Your task to perform on an android device: toggle show notifications on the lock screen Image 0: 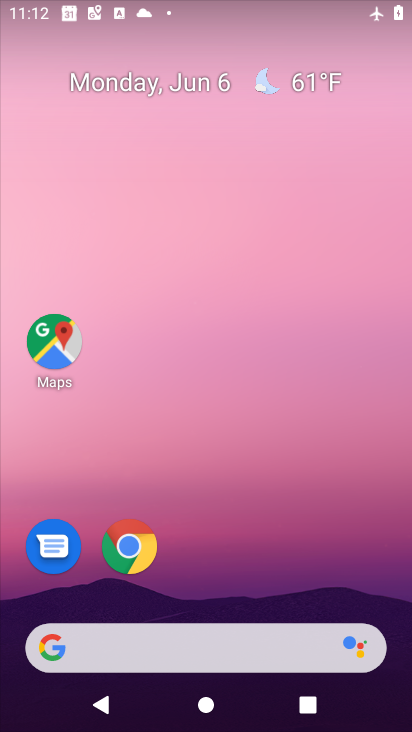
Step 0: drag from (393, 610) to (327, 87)
Your task to perform on an android device: toggle show notifications on the lock screen Image 1: 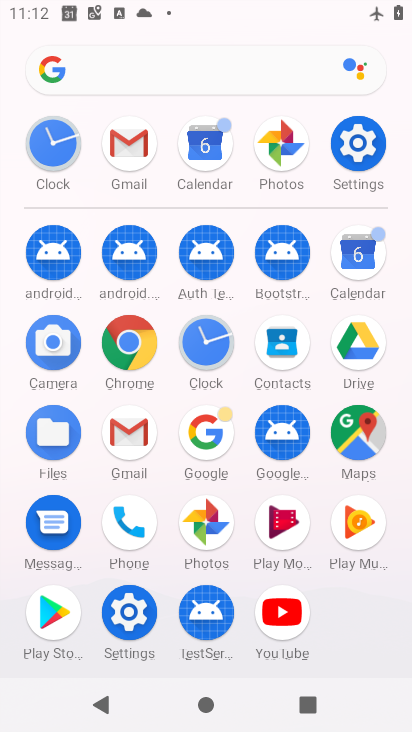
Step 1: click (129, 610)
Your task to perform on an android device: toggle show notifications on the lock screen Image 2: 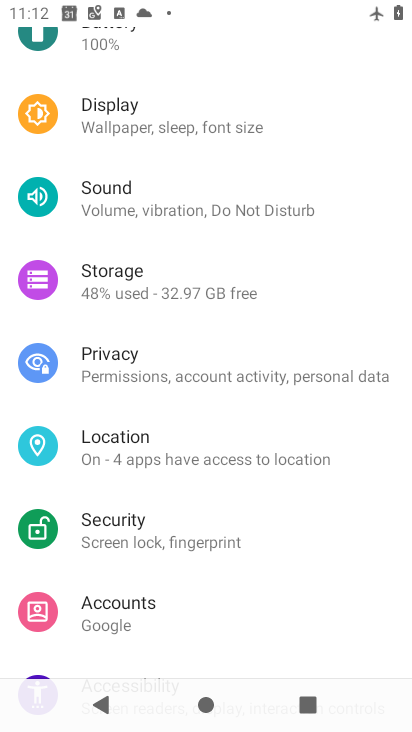
Step 2: drag from (341, 213) to (321, 413)
Your task to perform on an android device: toggle show notifications on the lock screen Image 3: 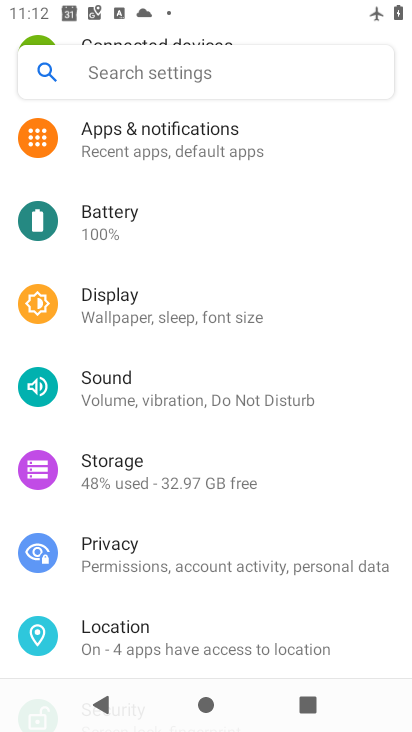
Step 3: click (148, 136)
Your task to perform on an android device: toggle show notifications on the lock screen Image 4: 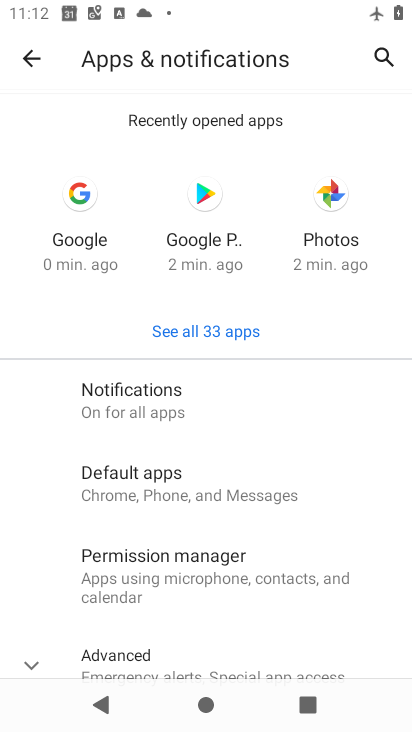
Step 4: click (159, 407)
Your task to perform on an android device: toggle show notifications on the lock screen Image 5: 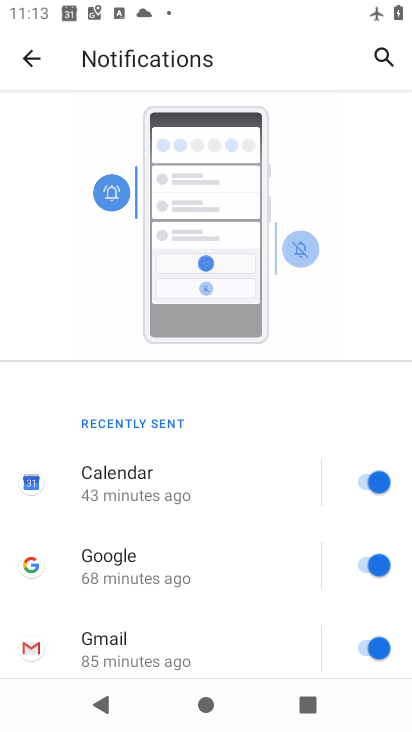
Step 5: drag from (328, 641) to (251, 171)
Your task to perform on an android device: toggle show notifications on the lock screen Image 6: 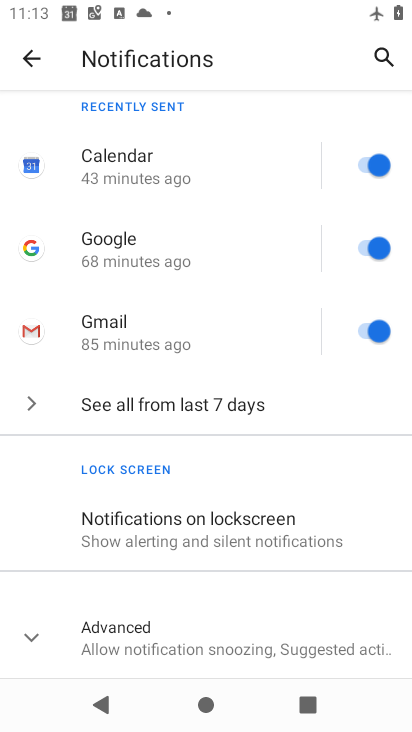
Step 6: click (193, 531)
Your task to perform on an android device: toggle show notifications on the lock screen Image 7: 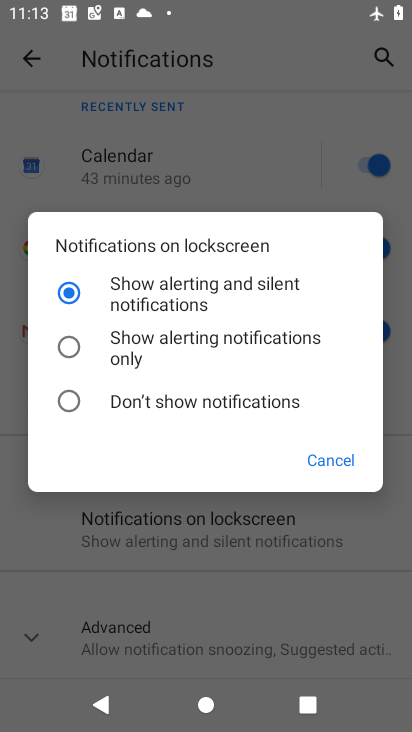
Step 7: click (74, 350)
Your task to perform on an android device: toggle show notifications on the lock screen Image 8: 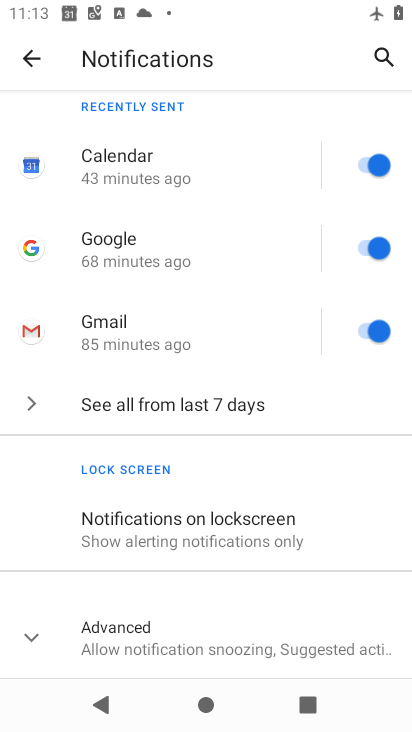
Step 8: task complete